Your task to perform on an android device: Do I have any events today? Image 0: 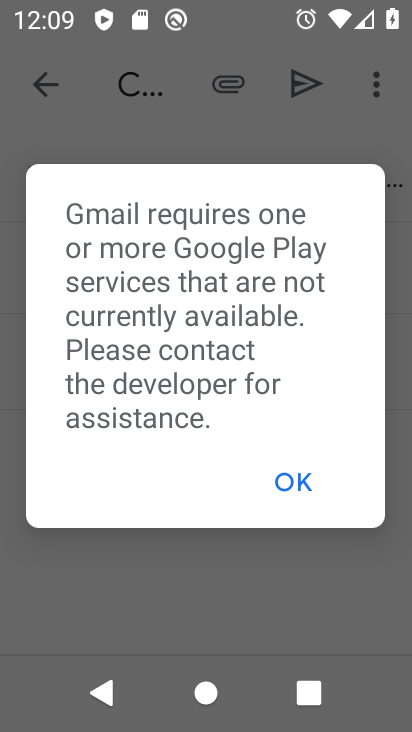
Step 0: press home button
Your task to perform on an android device: Do I have any events today? Image 1: 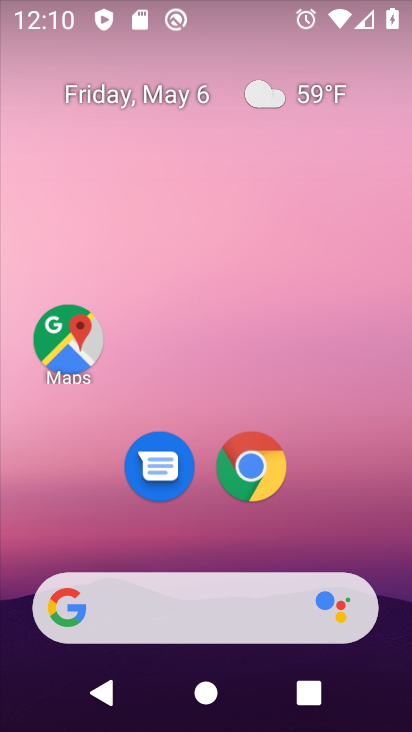
Step 1: drag from (199, 490) to (200, 147)
Your task to perform on an android device: Do I have any events today? Image 2: 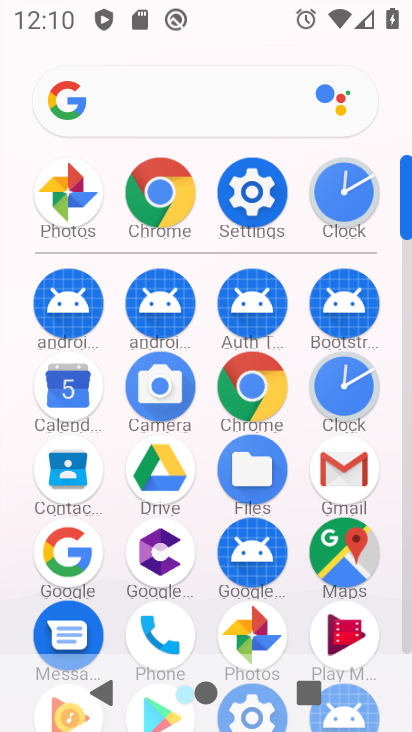
Step 2: click (54, 397)
Your task to perform on an android device: Do I have any events today? Image 3: 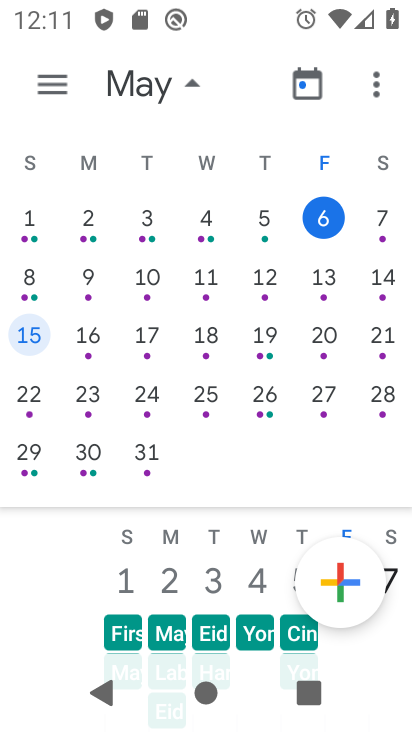
Step 3: click (314, 222)
Your task to perform on an android device: Do I have any events today? Image 4: 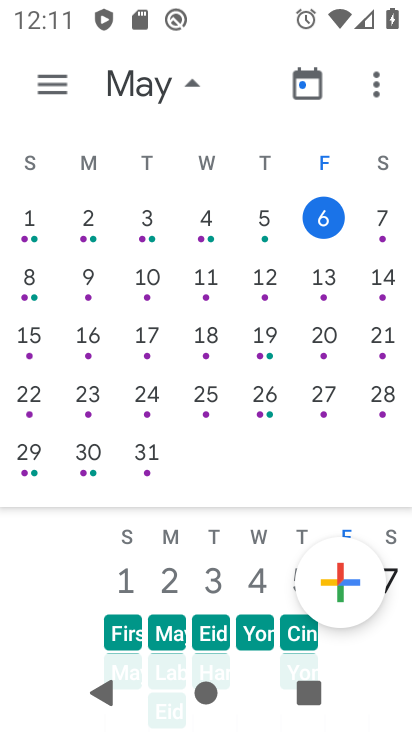
Step 4: task complete